Your task to perform on an android device: Search for the best rated TV on Target Image 0: 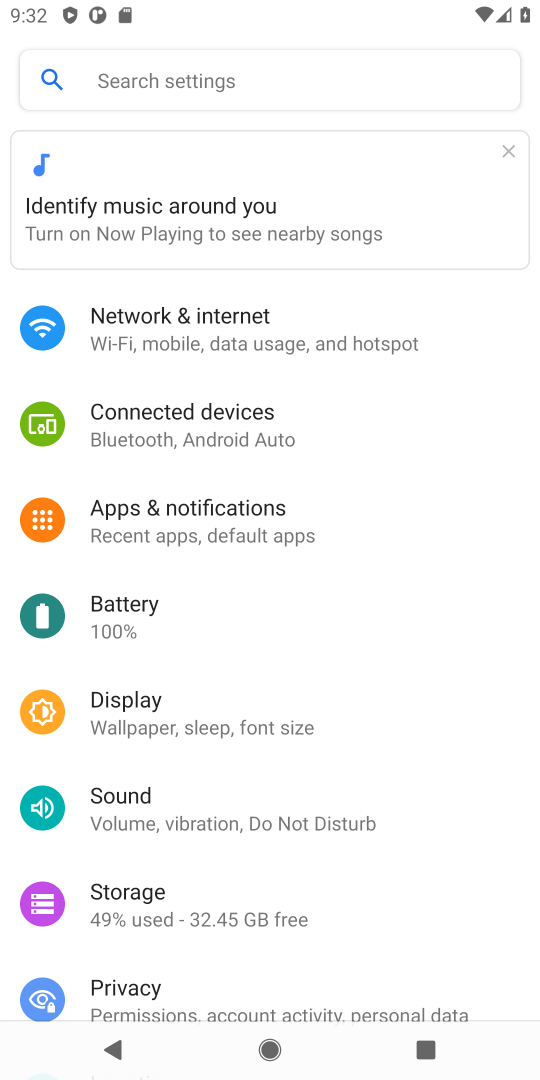
Step 0: press home button
Your task to perform on an android device: Search for the best rated TV on Target Image 1: 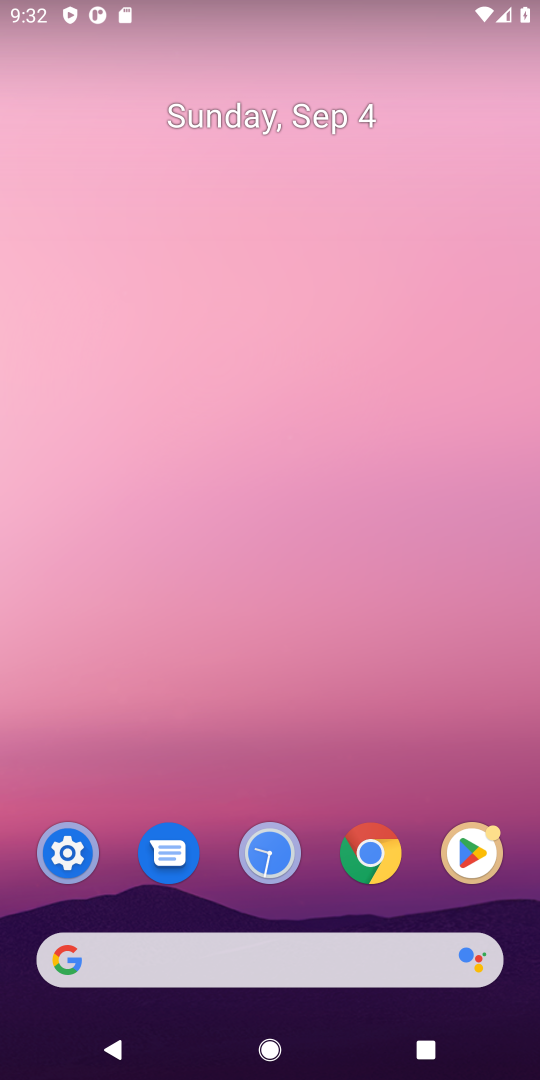
Step 1: click (365, 860)
Your task to perform on an android device: Search for the best rated TV on Target Image 2: 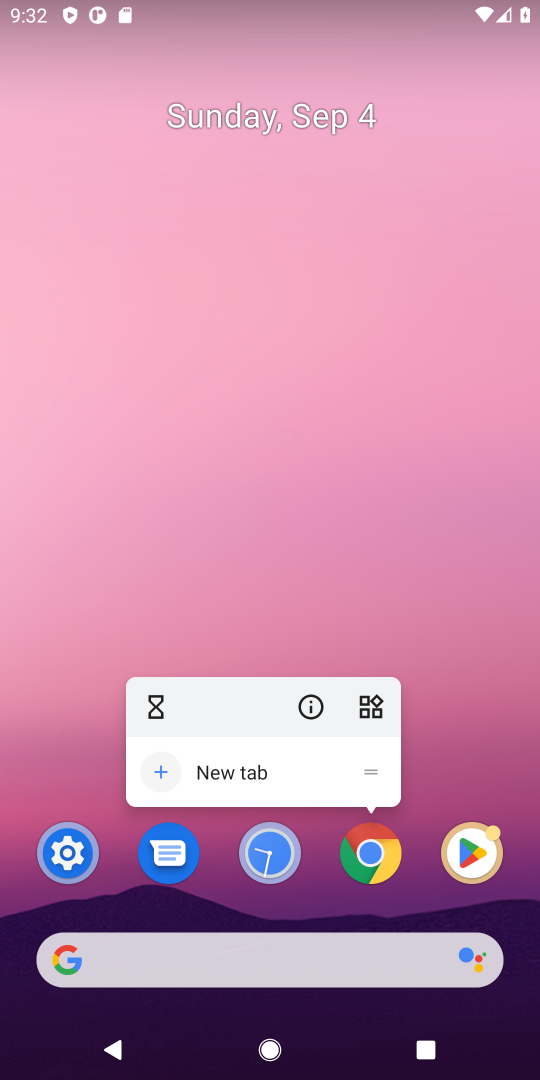
Step 2: click (365, 860)
Your task to perform on an android device: Search for the best rated TV on Target Image 3: 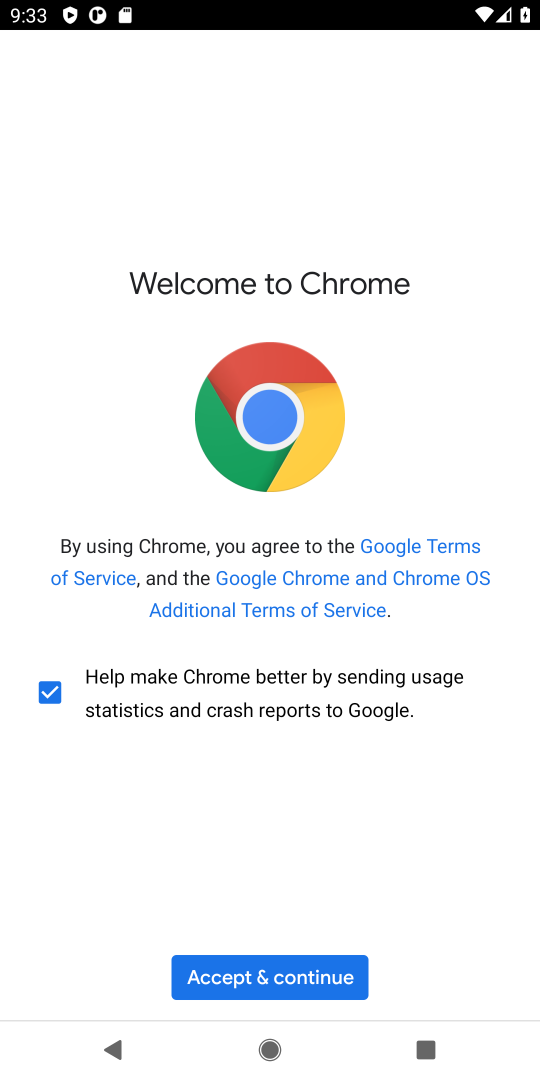
Step 3: click (255, 972)
Your task to perform on an android device: Search for the best rated TV on Target Image 4: 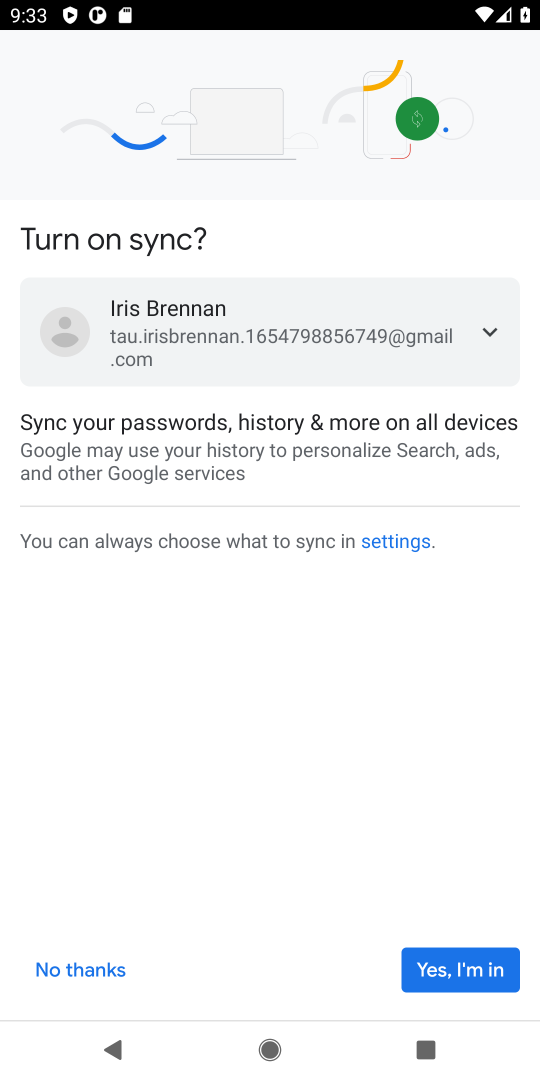
Step 4: click (465, 975)
Your task to perform on an android device: Search for the best rated TV on Target Image 5: 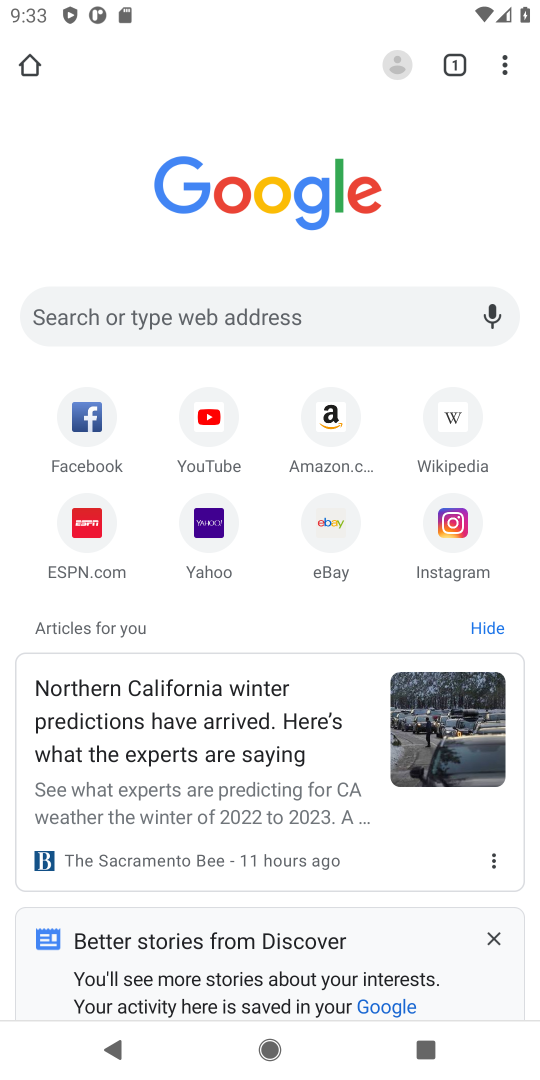
Step 5: click (153, 319)
Your task to perform on an android device: Search for the best rated TV on Target Image 6: 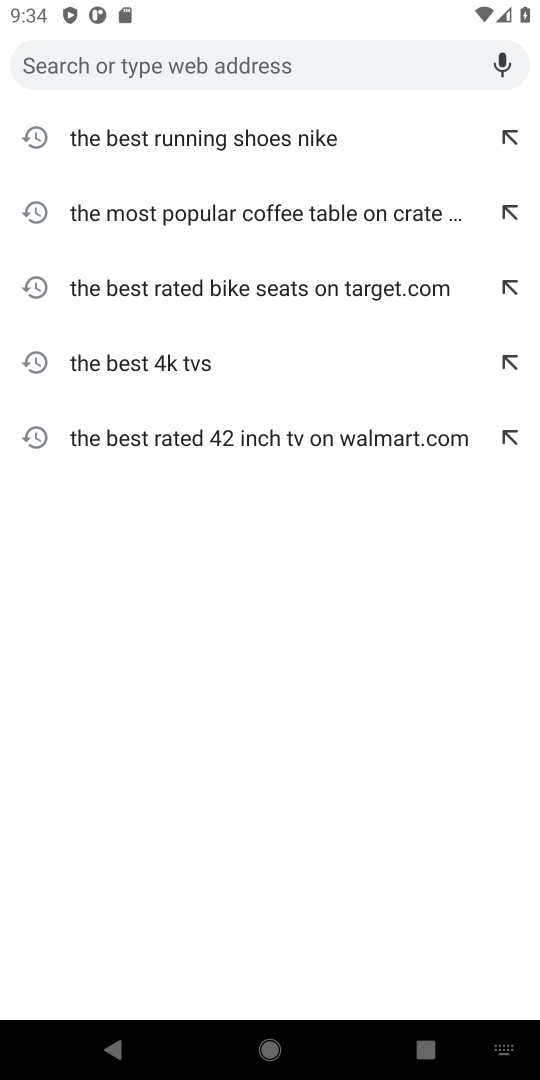
Step 6: type "target"
Your task to perform on an android device: Search for the best rated TV on Target Image 7: 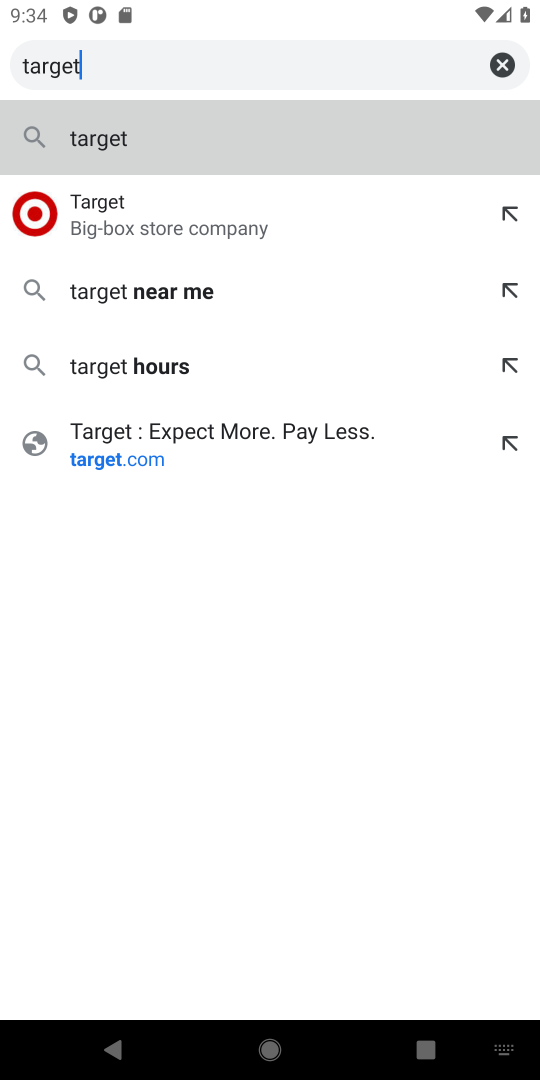
Step 7: click (156, 210)
Your task to perform on an android device: Search for the best rated TV on Target Image 8: 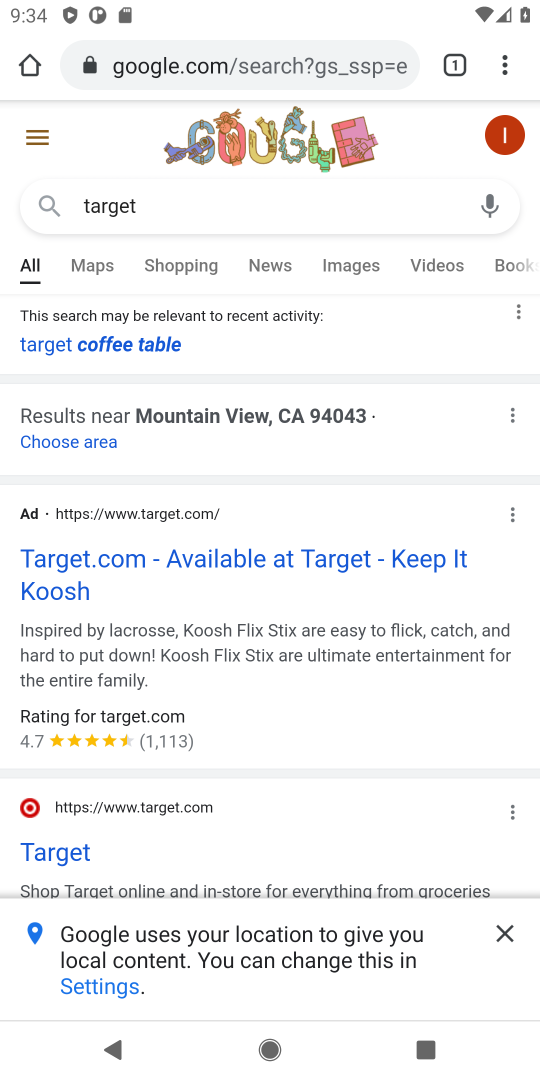
Step 8: click (74, 848)
Your task to perform on an android device: Search for the best rated TV on Target Image 9: 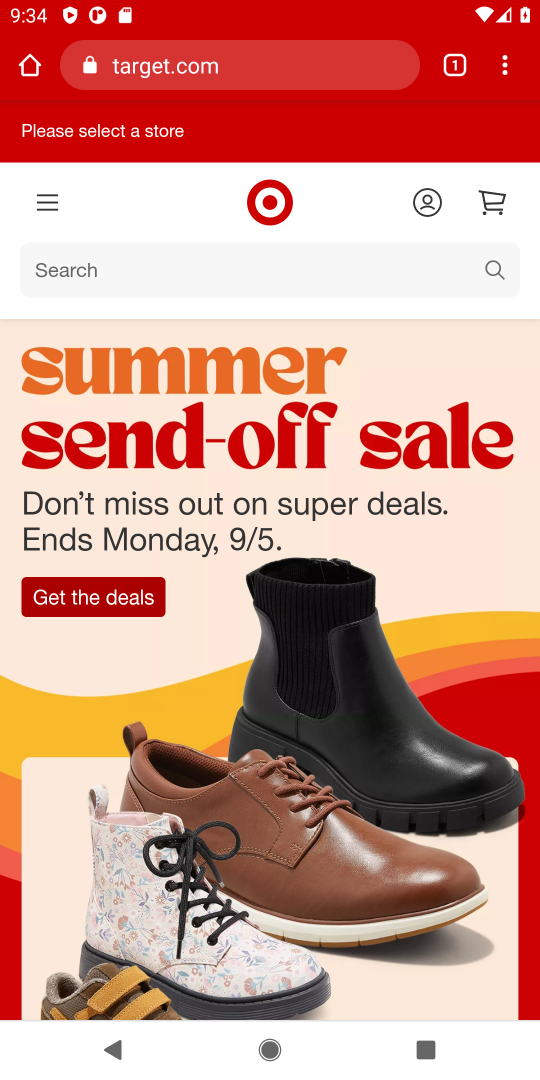
Step 9: click (487, 270)
Your task to perform on an android device: Search for the best rated TV on Target Image 10: 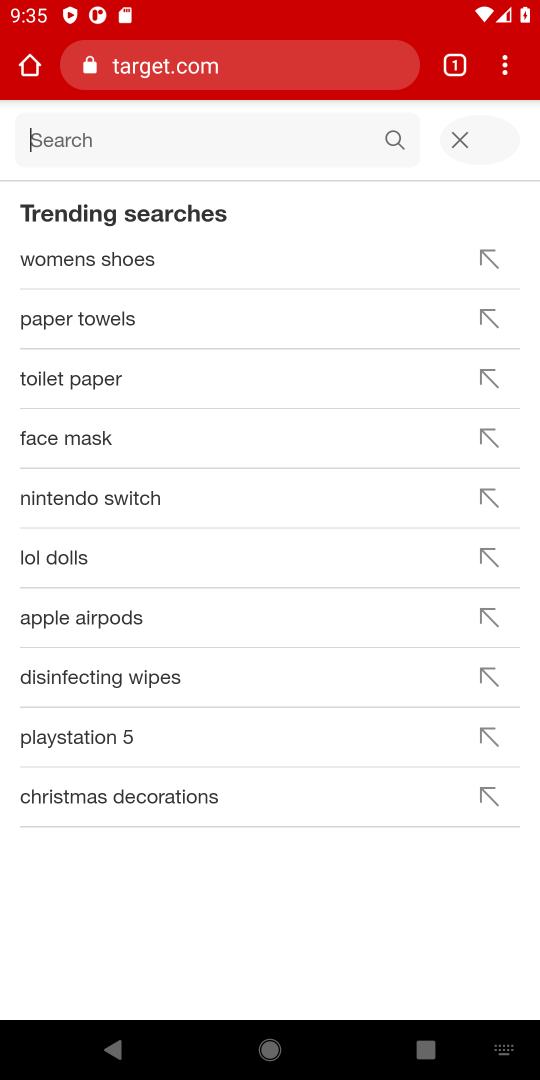
Step 10: type "best rated tv"
Your task to perform on an android device: Search for the best rated TV on Target Image 11: 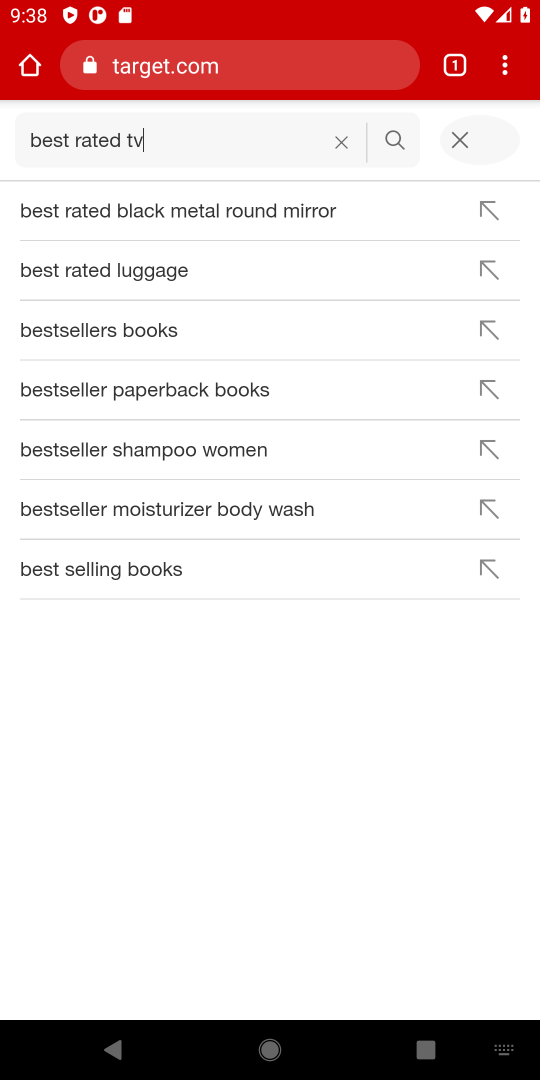
Step 11: task complete